Your task to perform on an android device: Open settings Image 0: 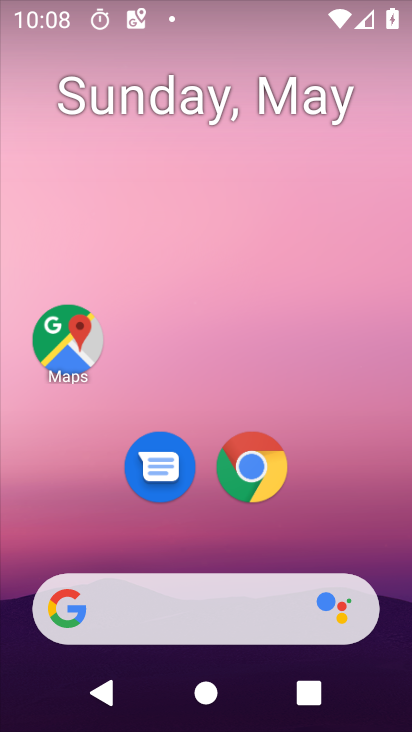
Step 0: drag from (202, 534) to (204, 190)
Your task to perform on an android device: Open settings Image 1: 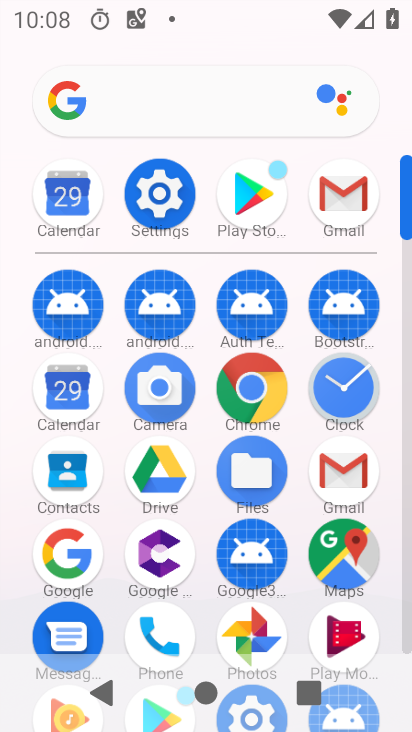
Step 1: click (168, 191)
Your task to perform on an android device: Open settings Image 2: 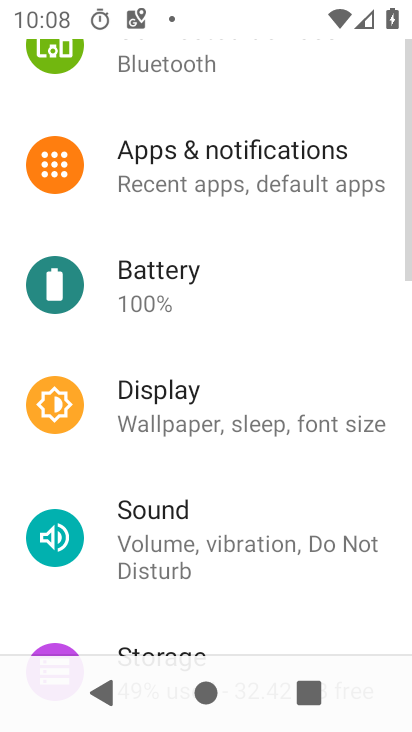
Step 2: task complete